Your task to perform on an android device: turn off picture-in-picture Image 0: 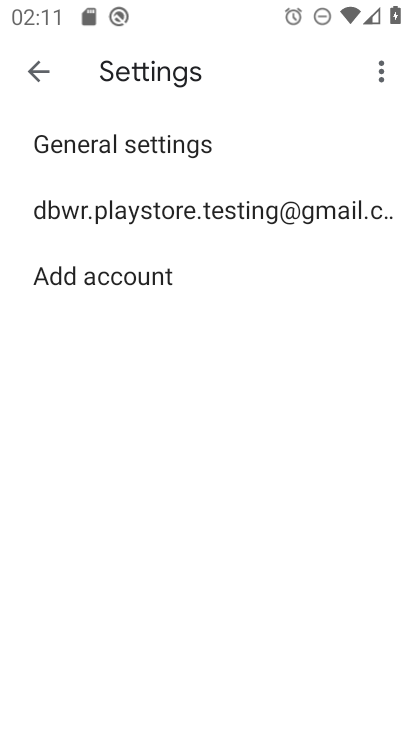
Step 0: press home button
Your task to perform on an android device: turn off picture-in-picture Image 1: 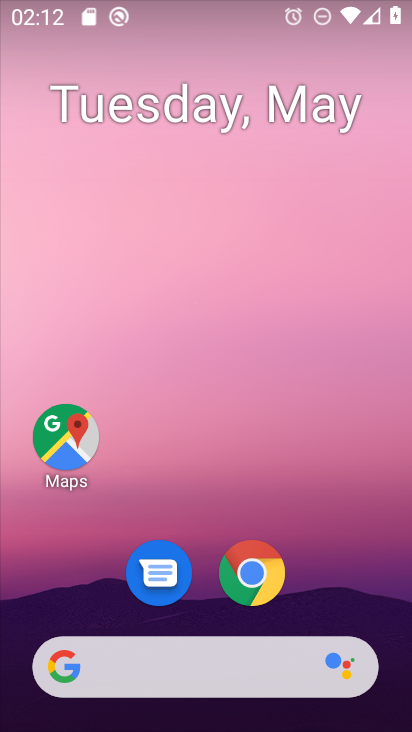
Step 1: click (269, 567)
Your task to perform on an android device: turn off picture-in-picture Image 2: 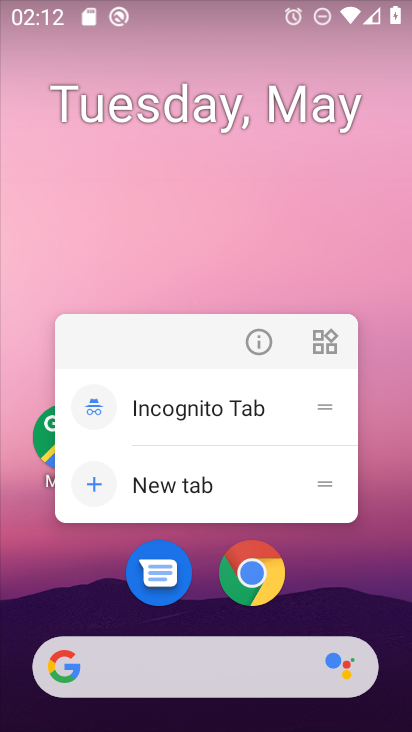
Step 2: click (266, 341)
Your task to perform on an android device: turn off picture-in-picture Image 3: 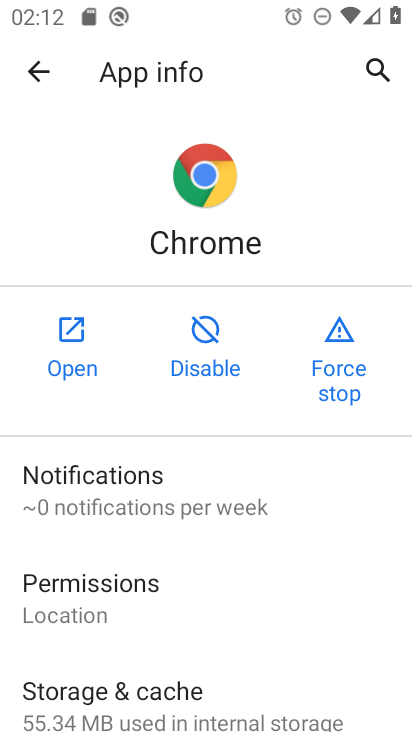
Step 3: drag from (288, 685) to (292, 43)
Your task to perform on an android device: turn off picture-in-picture Image 4: 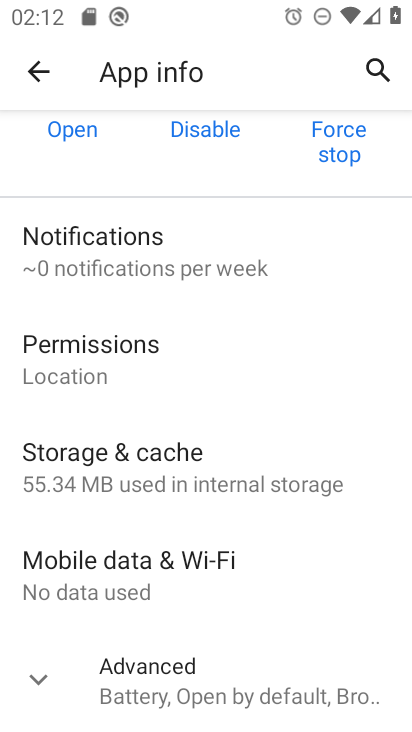
Step 4: click (202, 718)
Your task to perform on an android device: turn off picture-in-picture Image 5: 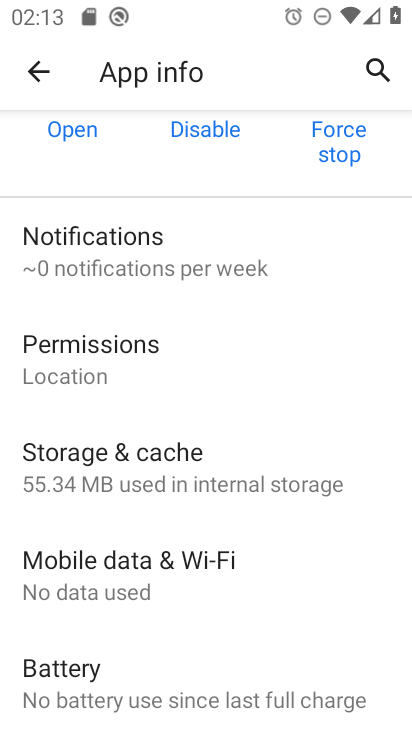
Step 5: drag from (254, 560) to (257, 73)
Your task to perform on an android device: turn off picture-in-picture Image 6: 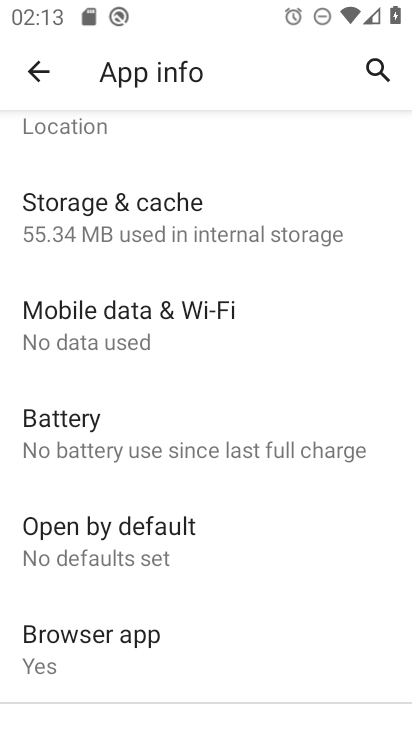
Step 6: drag from (243, 659) to (249, 236)
Your task to perform on an android device: turn off picture-in-picture Image 7: 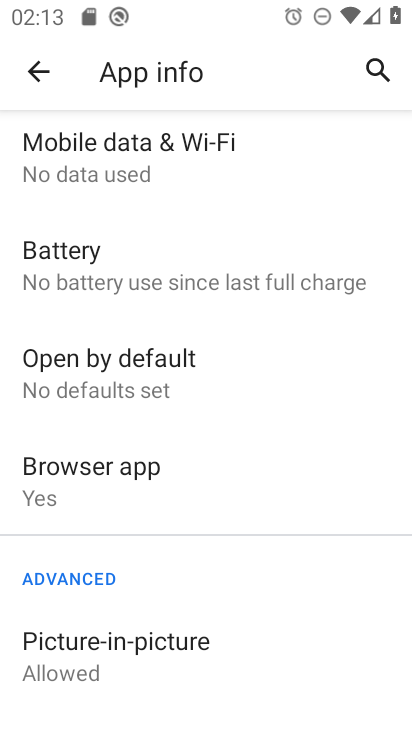
Step 7: click (119, 661)
Your task to perform on an android device: turn off picture-in-picture Image 8: 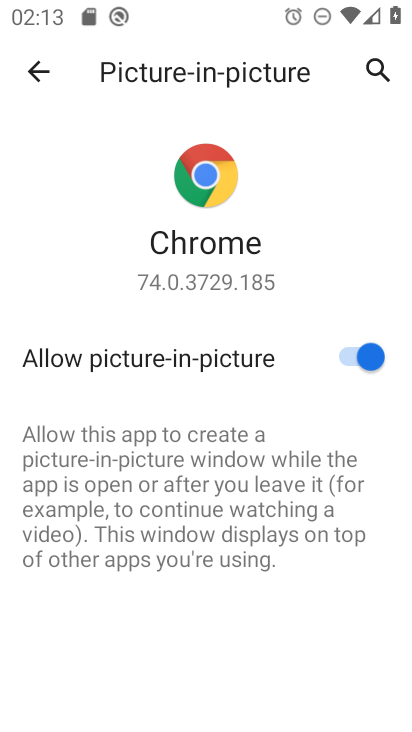
Step 8: click (371, 341)
Your task to perform on an android device: turn off picture-in-picture Image 9: 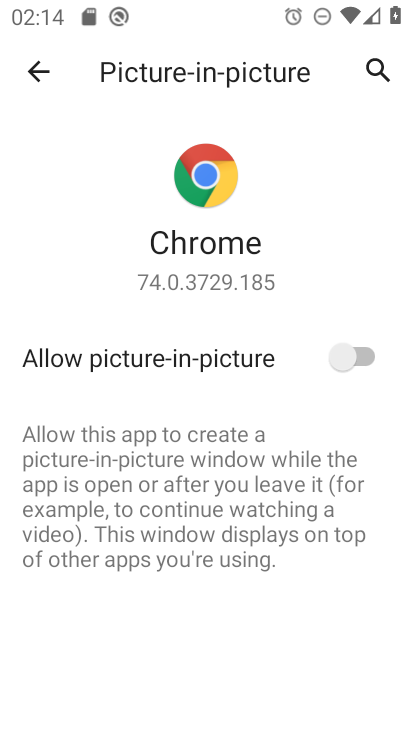
Step 9: task complete